Your task to perform on an android device: Play the last video I watched on Youtube Image 0: 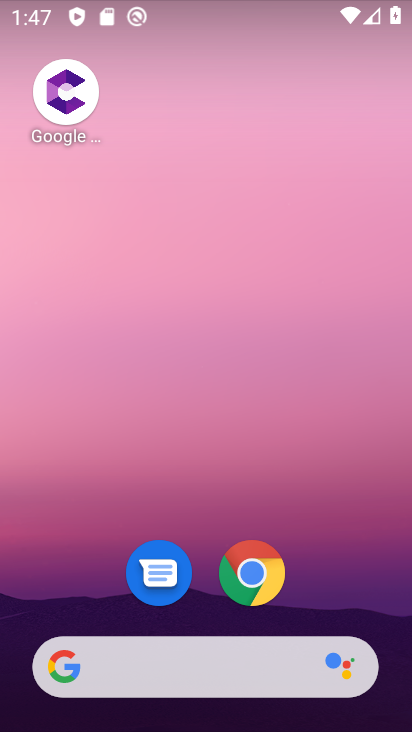
Step 0: drag from (94, 629) to (259, 137)
Your task to perform on an android device: Play the last video I watched on Youtube Image 1: 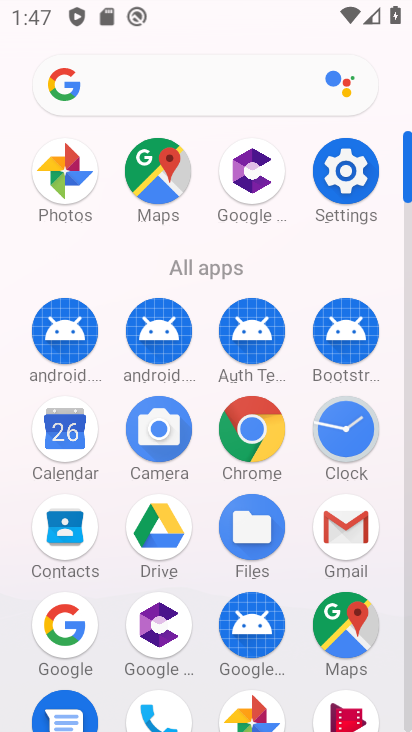
Step 1: drag from (253, 586) to (334, 350)
Your task to perform on an android device: Play the last video I watched on Youtube Image 2: 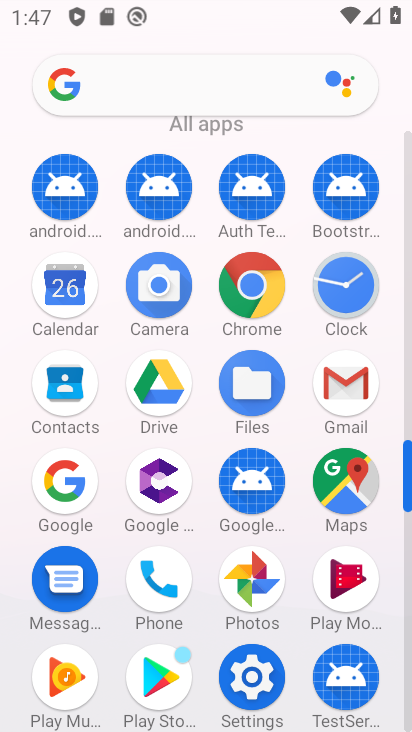
Step 2: drag from (230, 600) to (328, 330)
Your task to perform on an android device: Play the last video I watched on Youtube Image 3: 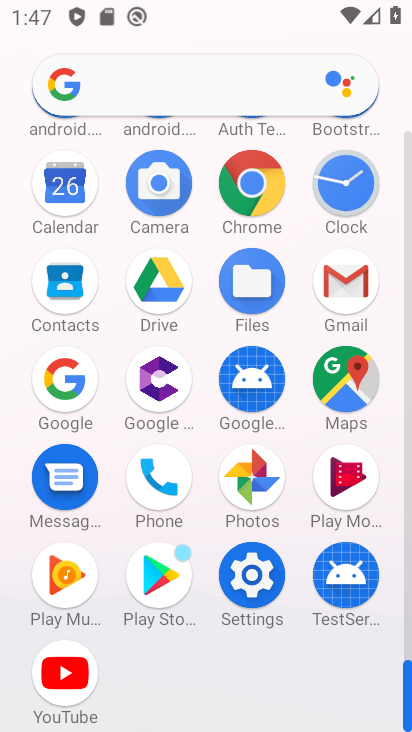
Step 3: click (70, 675)
Your task to perform on an android device: Play the last video I watched on Youtube Image 4: 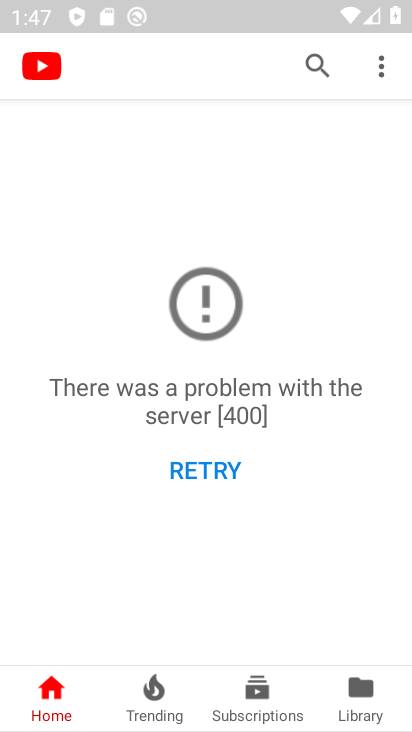
Step 4: click (384, 722)
Your task to perform on an android device: Play the last video I watched on Youtube Image 5: 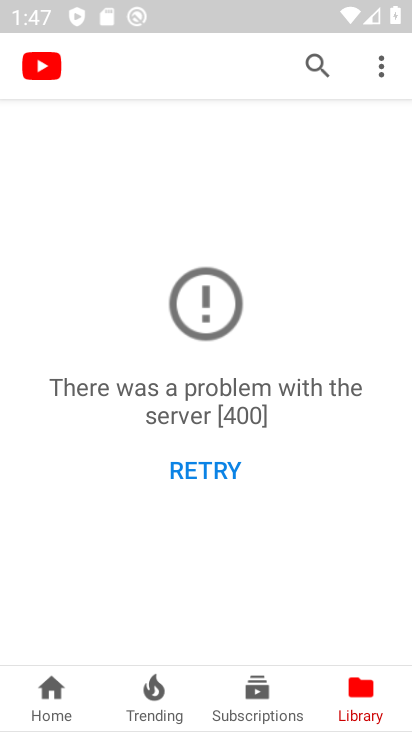
Step 5: task complete